Your task to perform on an android device: Open the calendar app, open the side menu, and click the "Day" option Image 0: 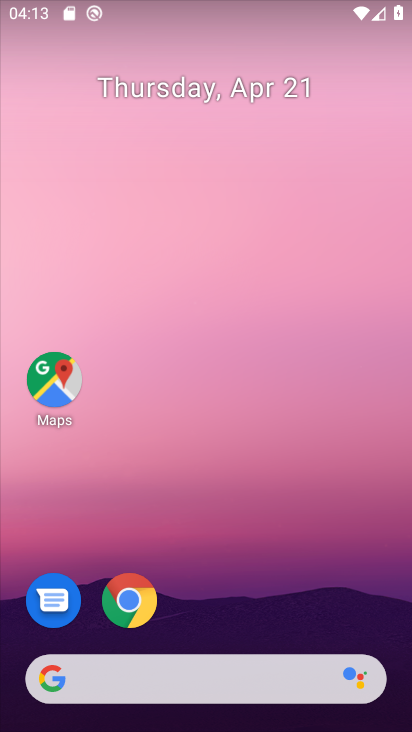
Step 0: click (351, 31)
Your task to perform on an android device: Open the calendar app, open the side menu, and click the "Day" option Image 1: 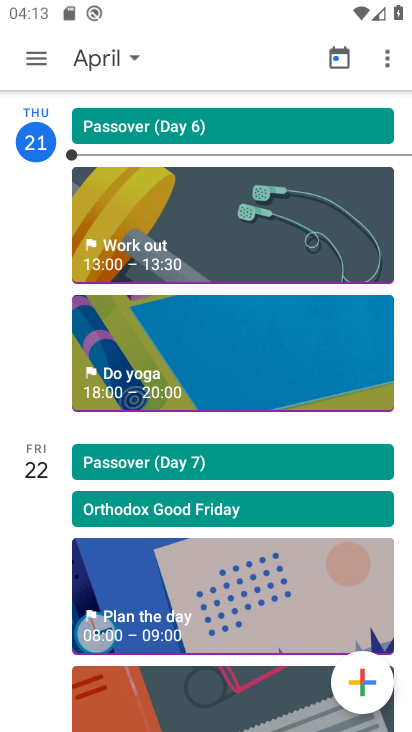
Step 1: click (33, 60)
Your task to perform on an android device: Open the calendar app, open the side menu, and click the "Day" option Image 2: 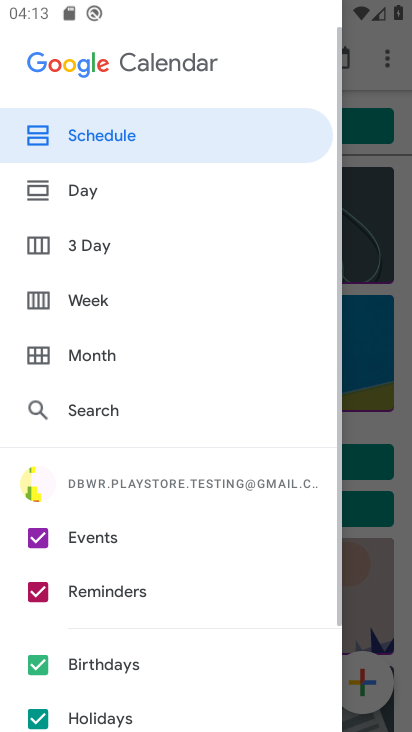
Step 2: click (74, 188)
Your task to perform on an android device: Open the calendar app, open the side menu, and click the "Day" option Image 3: 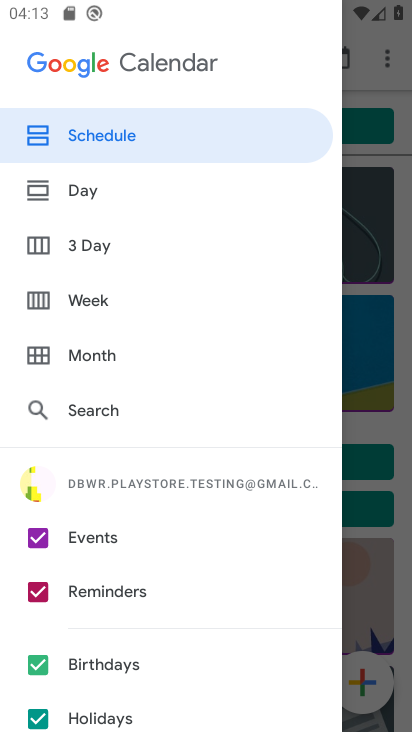
Step 3: click (79, 190)
Your task to perform on an android device: Open the calendar app, open the side menu, and click the "Day" option Image 4: 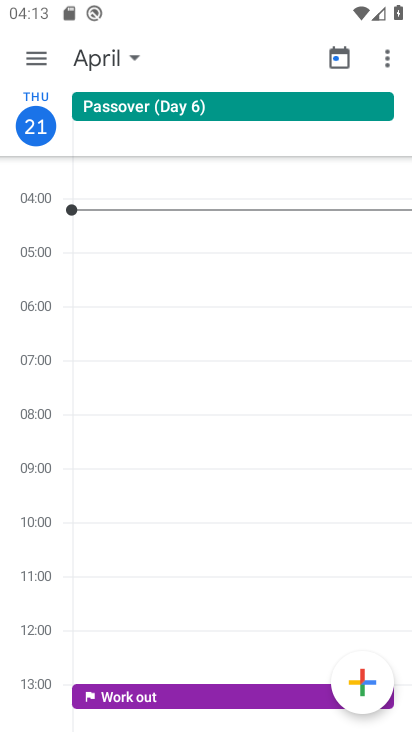
Step 4: task complete